Your task to perform on an android device: Open Google Chrome and open the bookmarks view Image 0: 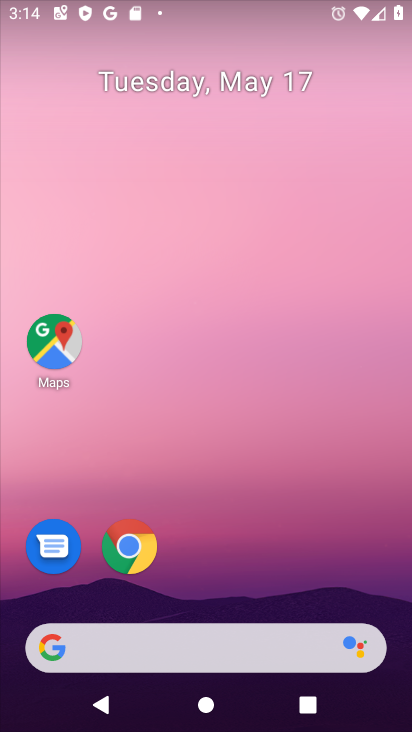
Step 0: click (121, 536)
Your task to perform on an android device: Open Google Chrome and open the bookmarks view Image 1: 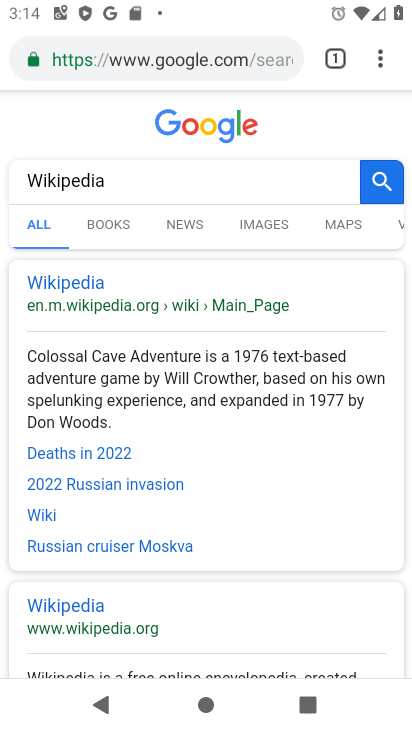
Step 1: click (375, 49)
Your task to perform on an android device: Open Google Chrome and open the bookmarks view Image 2: 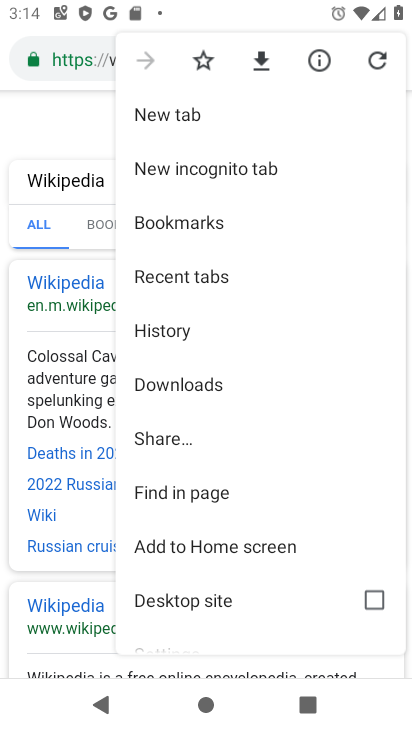
Step 2: click (172, 219)
Your task to perform on an android device: Open Google Chrome and open the bookmarks view Image 3: 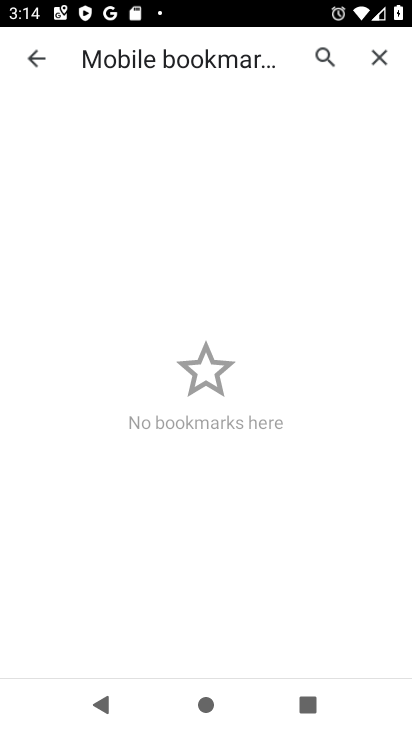
Step 3: task complete